Your task to perform on an android device: add a contact in the contacts app Image 0: 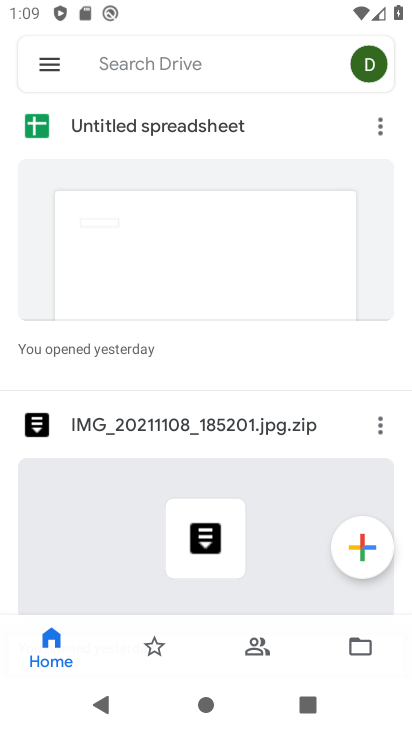
Step 0: press home button
Your task to perform on an android device: add a contact in the contacts app Image 1: 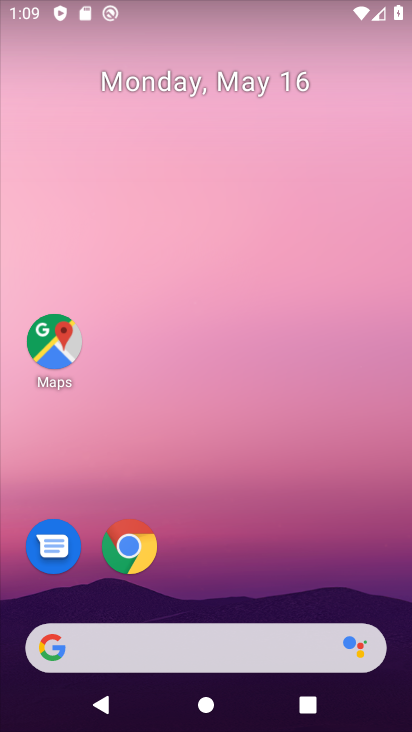
Step 1: drag from (140, 573) to (202, 166)
Your task to perform on an android device: add a contact in the contacts app Image 2: 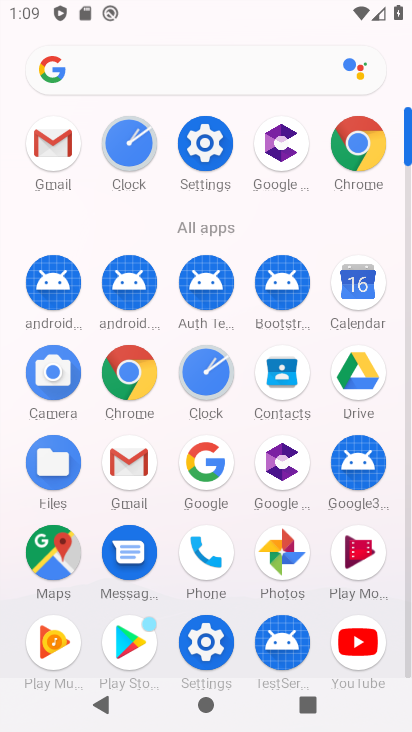
Step 2: drag from (101, 425) to (123, 191)
Your task to perform on an android device: add a contact in the contacts app Image 3: 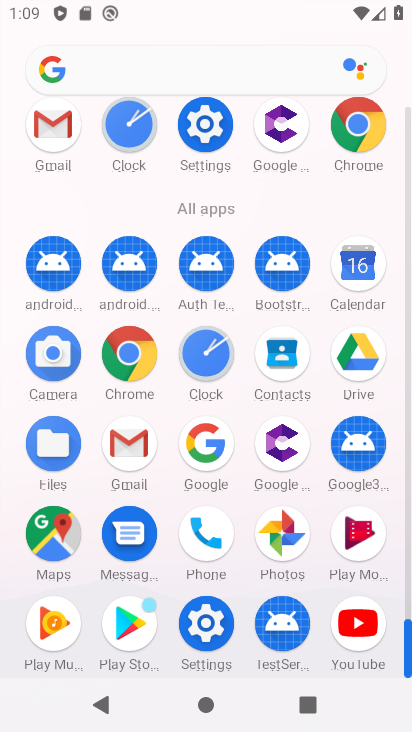
Step 3: click (274, 357)
Your task to perform on an android device: add a contact in the contacts app Image 4: 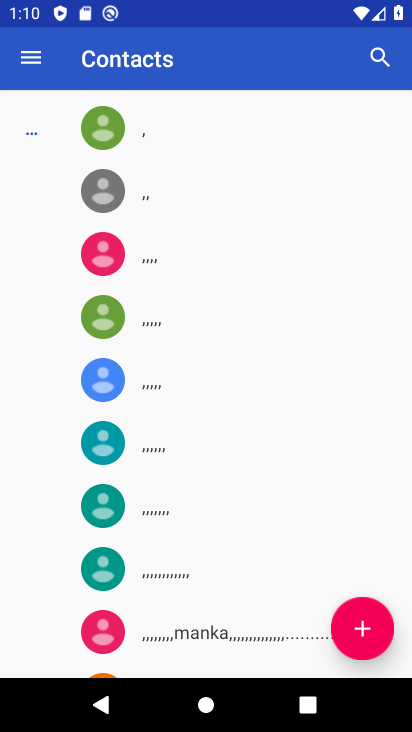
Step 4: press home button
Your task to perform on an android device: add a contact in the contacts app Image 5: 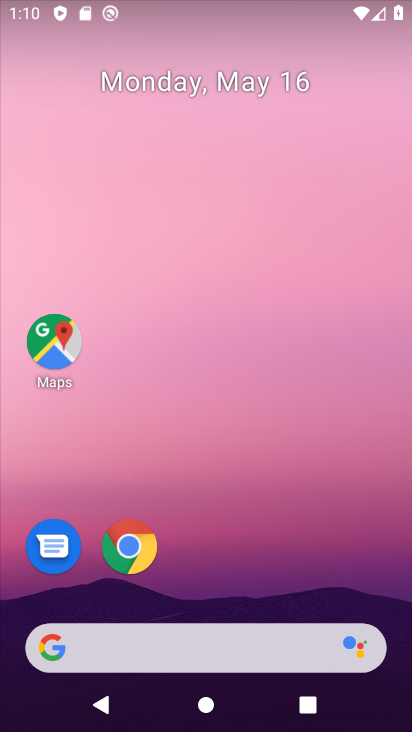
Step 5: drag from (250, 462) to (308, 140)
Your task to perform on an android device: add a contact in the contacts app Image 6: 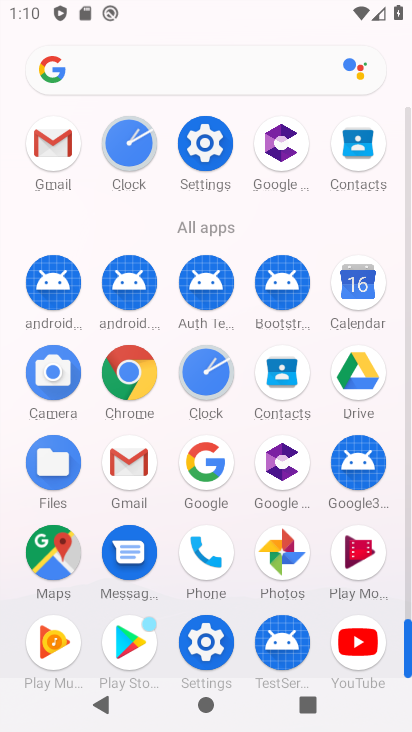
Step 6: click (288, 381)
Your task to perform on an android device: add a contact in the contacts app Image 7: 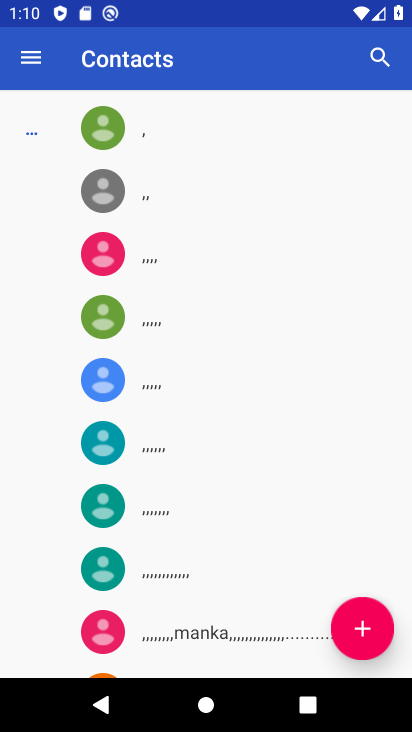
Step 7: click (354, 621)
Your task to perform on an android device: add a contact in the contacts app Image 8: 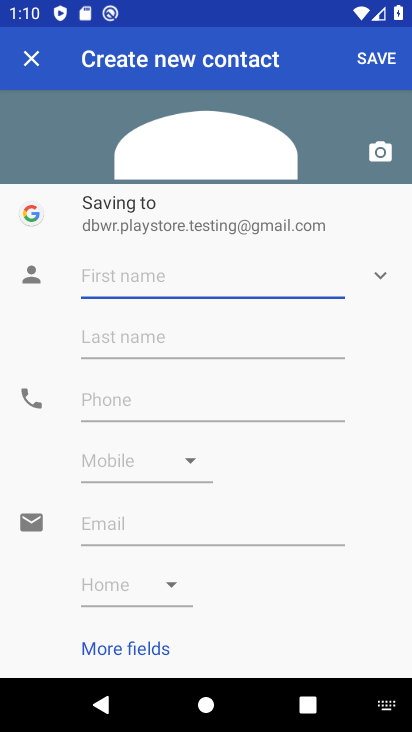
Step 8: type "fdf"
Your task to perform on an android device: add a contact in the contacts app Image 9: 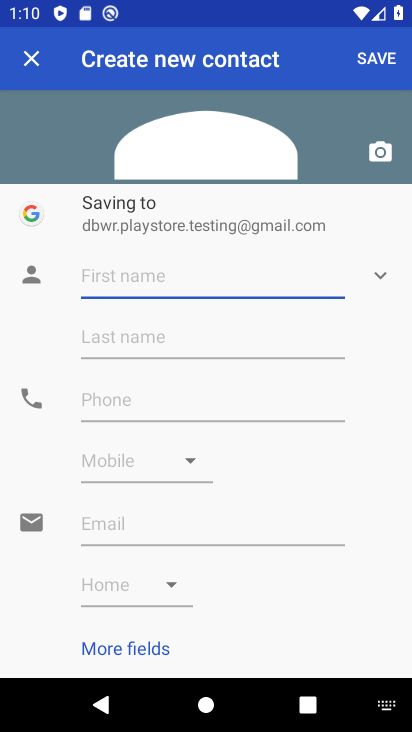
Step 9: click (148, 344)
Your task to perform on an android device: add a contact in the contacts app Image 10: 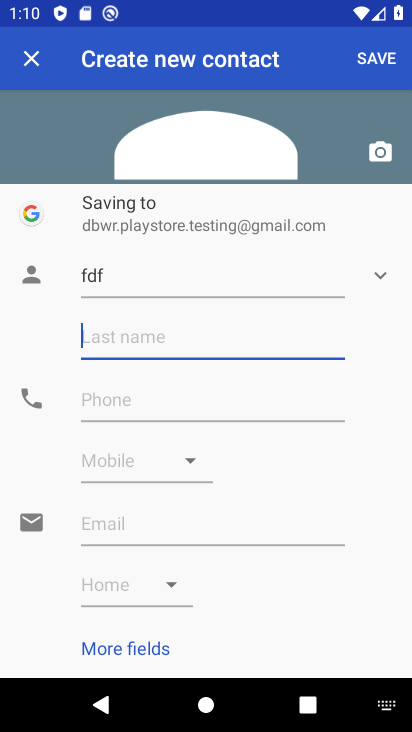
Step 10: type "fdsvgf"
Your task to perform on an android device: add a contact in the contacts app Image 11: 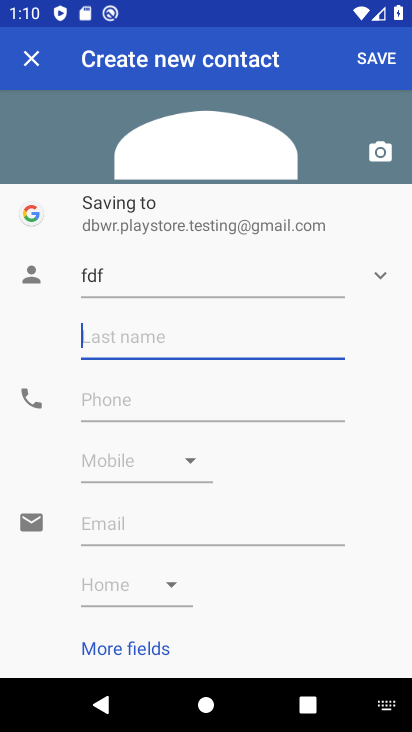
Step 11: click (111, 390)
Your task to perform on an android device: add a contact in the contacts app Image 12: 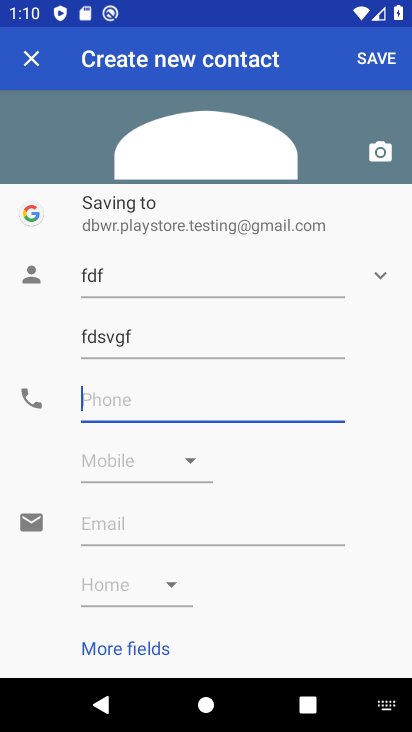
Step 12: type "4545"
Your task to perform on an android device: add a contact in the contacts app Image 13: 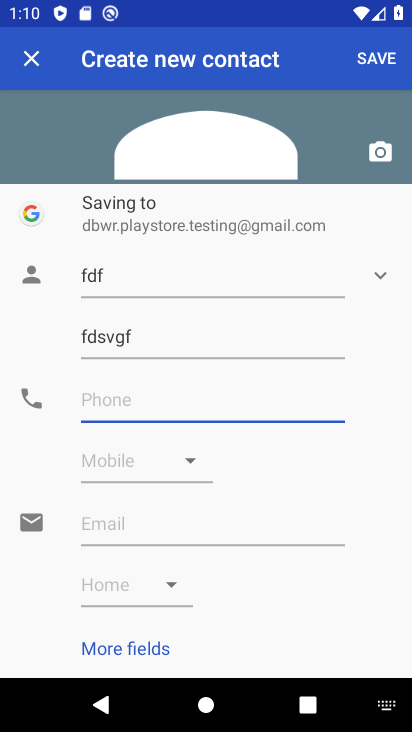
Step 13: click (122, 466)
Your task to perform on an android device: add a contact in the contacts app Image 14: 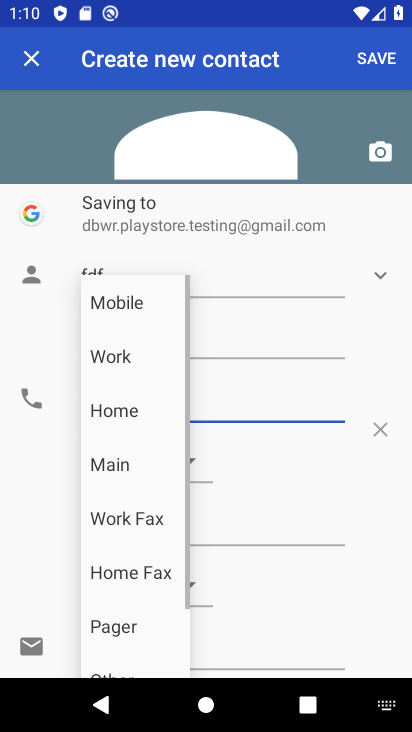
Step 14: click (377, 56)
Your task to perform on an android device: add a contact in the contacts app Image 15: 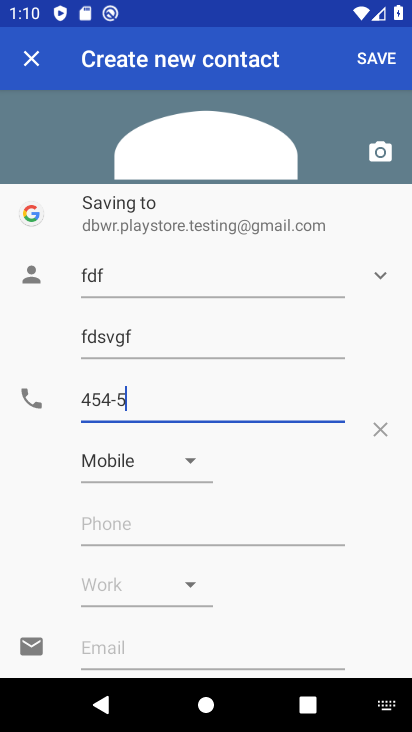
Step 15: click (374, 65)
Your task to perform on an android device: add a contact in the contacts app Image 16: 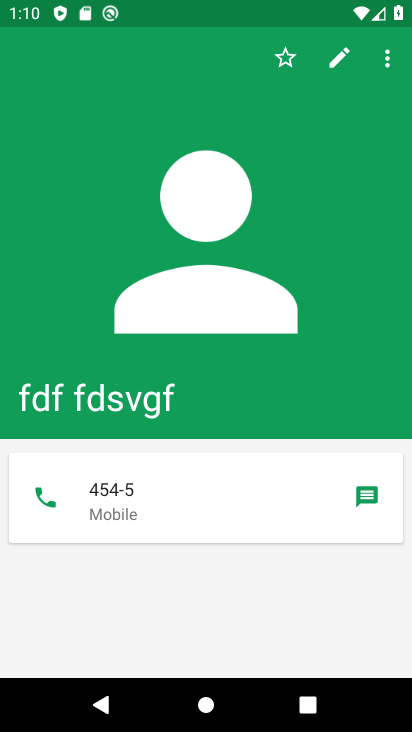
Step 16: task complete